Your task to perform on an android device: Go to CNN.com Image 0: 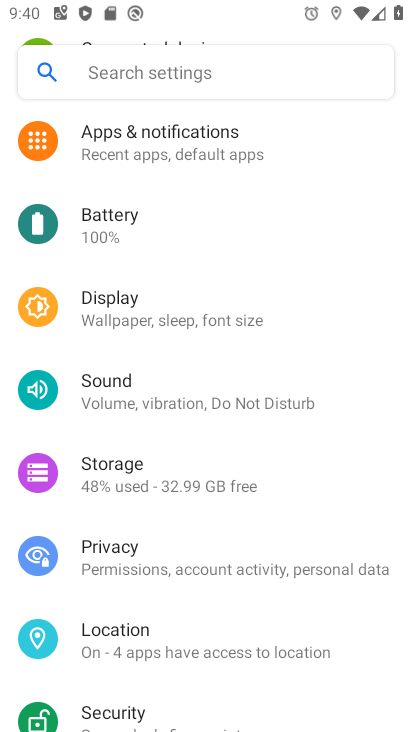
Step 0: press home button
Your task to perform on an android device: Go to CNN.com Image 1: 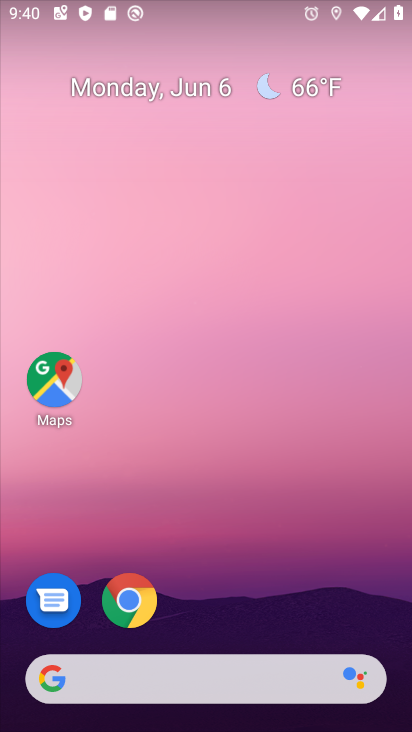
Step 1: click (207, 673)
Your task to perform on an android device: Go to CNN.com Image 2: 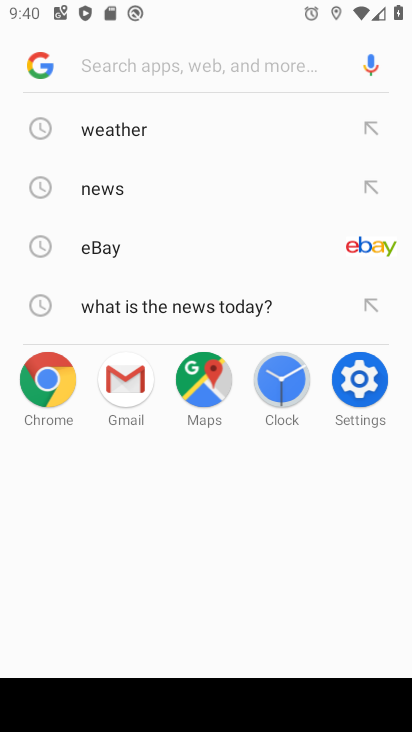
Step 2: click (198, 63)
Your task to perform on an android device: Go to CNN.com Image 3: 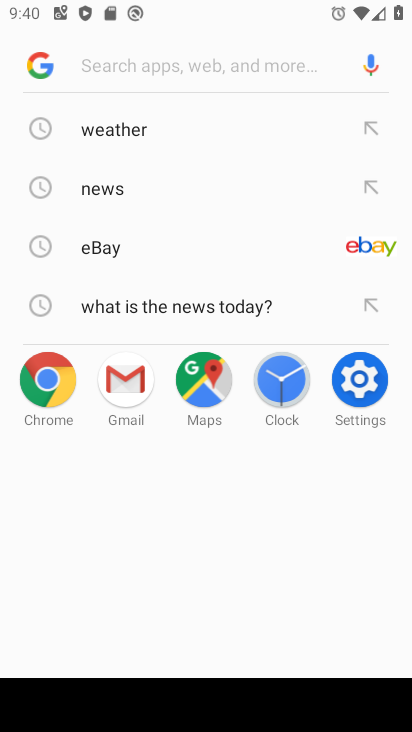
Step 3: type "CNN.com"
Your task to perform on an android device: Go to CNN.com Image 4: 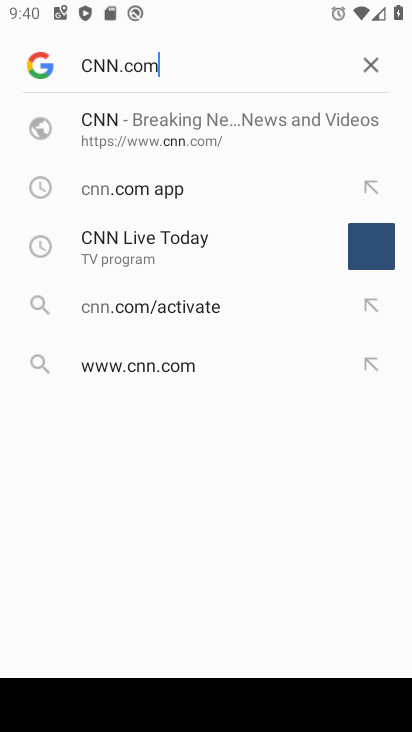
Step 4: type ""
Your task to perform on an android device: Go to CNN.com Image 5: 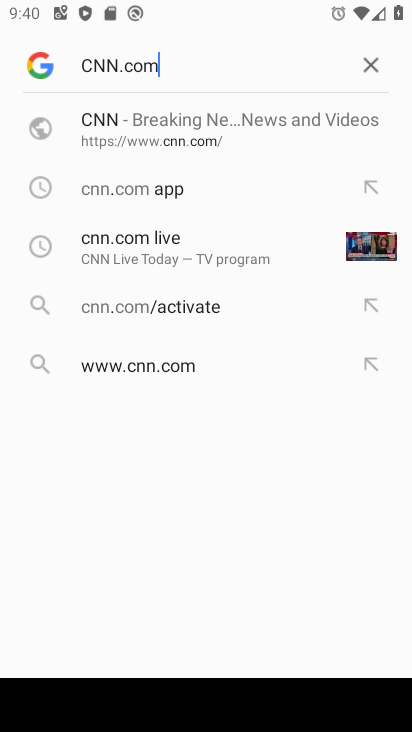
Step 5: click (264, 118)
Your task to perform on an android device: Go to CNN.com Image 6: 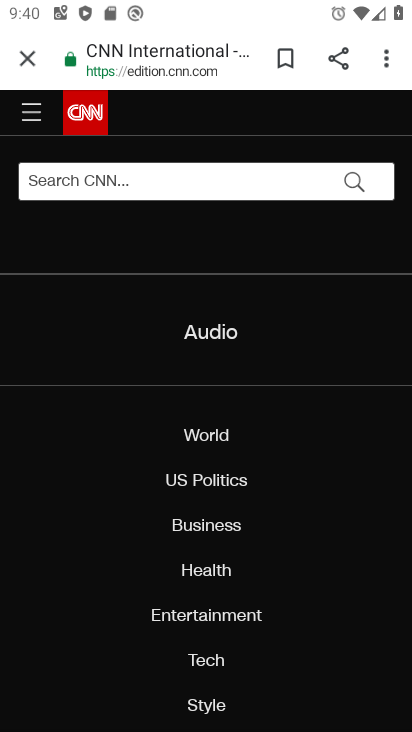
Step 6: task complete